Your task to perform on an android device: turn off sleep mode Image 0: 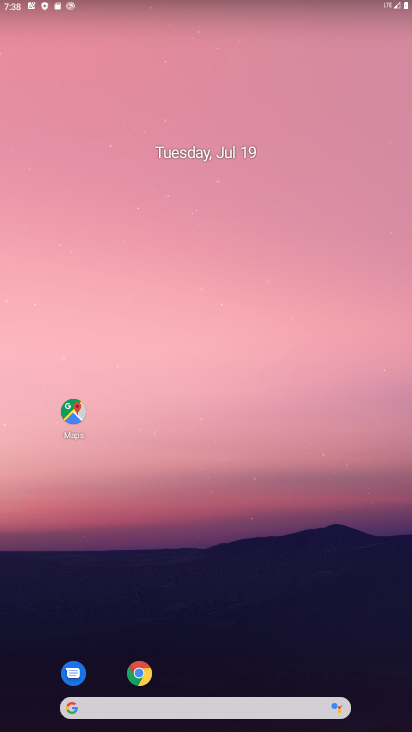
Step 0: drag from (364, 692) to (173, 57)
Your task to perform on an android device: turn off sleep mode Image 1: 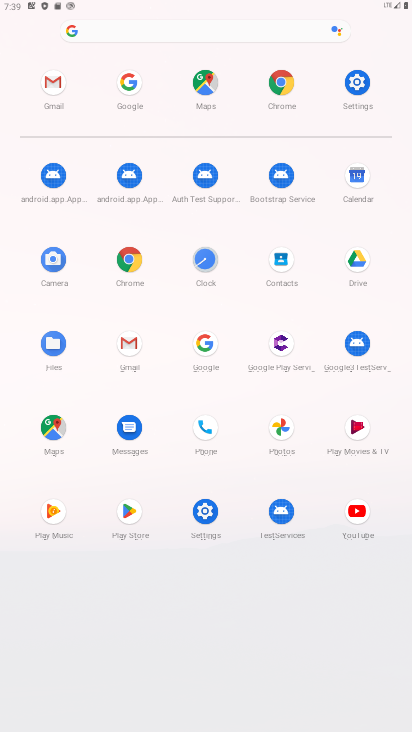
Step 1: click (197, 528)
Your task to perform on an android device: turn off sleep mode Image 2: 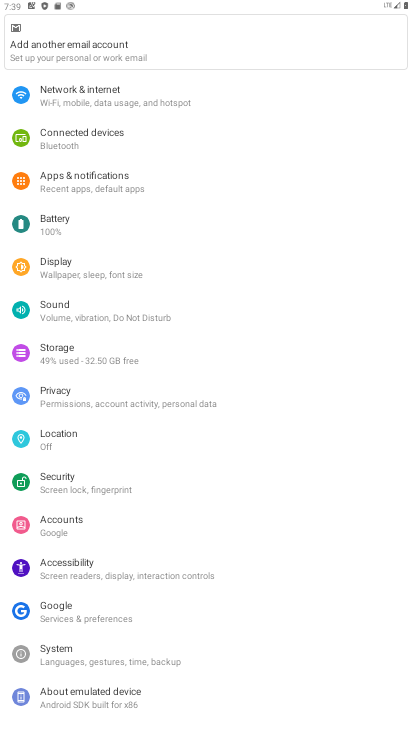
Step 2: task complete